Your task to perform on an android device: Open eBay Image 0: 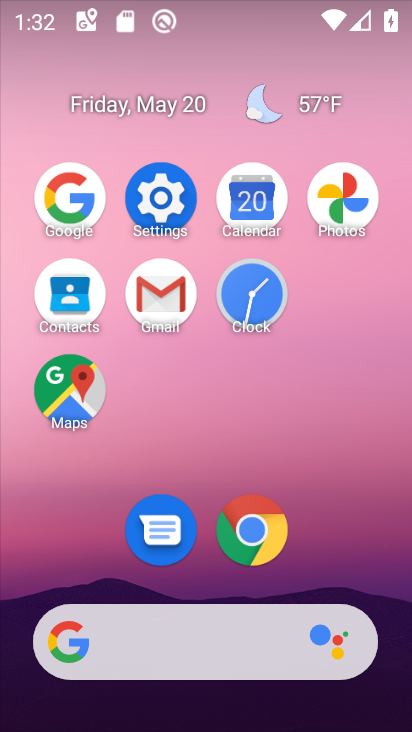
Step 0: click (254, 521)
Your task to perform on an android device: Open eBay Image 1: 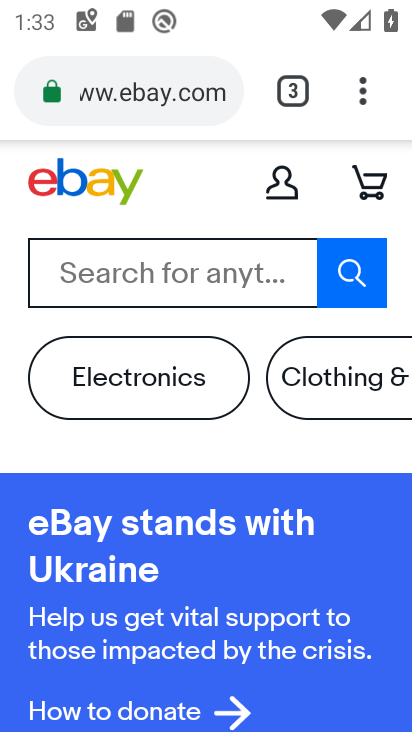
Step 1: task complete